Your task to perform on an android device: turn off notifications in google photos Image 0: 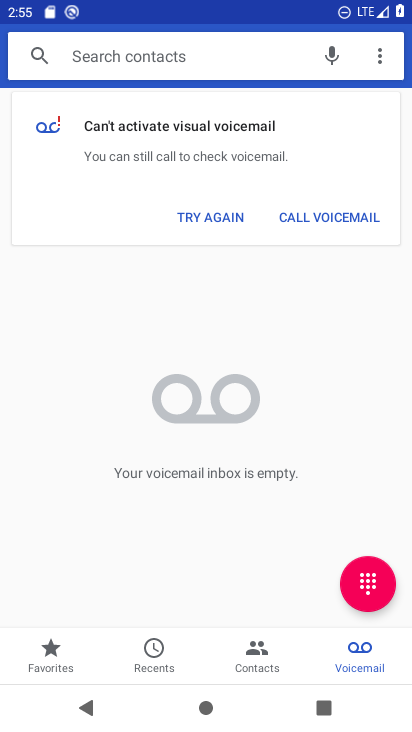
Step 0: press home button
Your task to perform on an android device: turn off notifications in google photos Image 1: 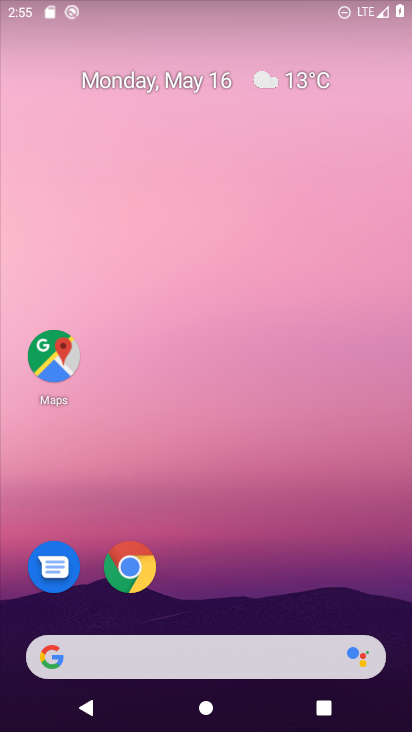
Step 1: drag from (270, 527) to (213, 56)
Your task to perform on an android device: turn off notifications in google photos Image 2: 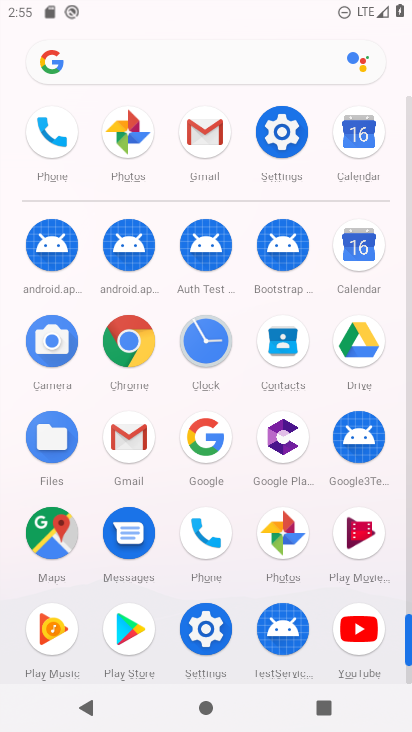
Step 2: click (286, 518)
Your task to perform on an android device: turn off notifications in google photos Image 3: 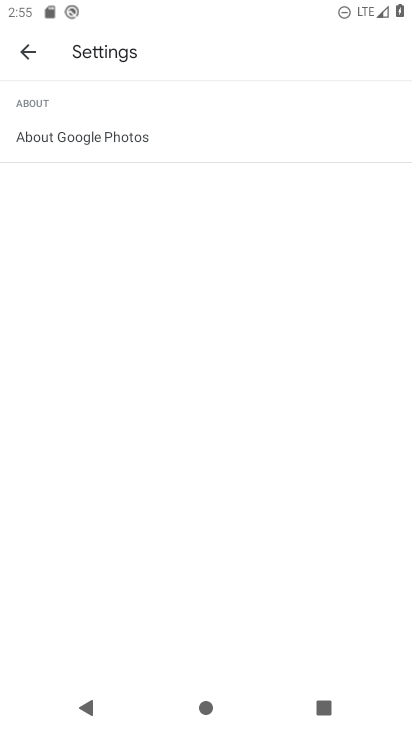
Step 3: click (32, 60)
Your task to perform on an android device: turn off notifications in google photos Image 4: 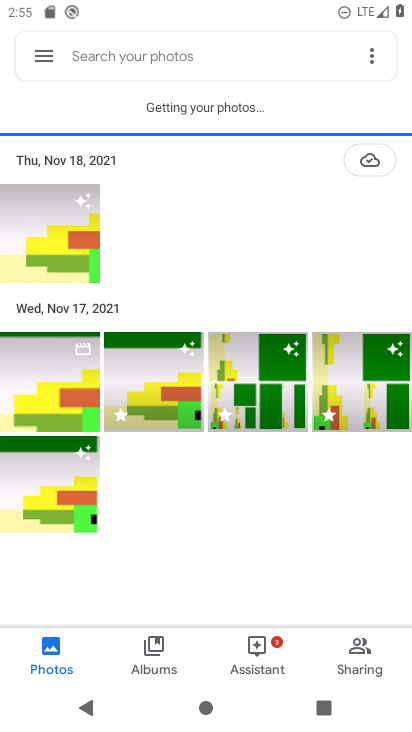
Step 4: click (33, 58)
Your task to perform on an android device: turn off notifications in google photos Image 5: 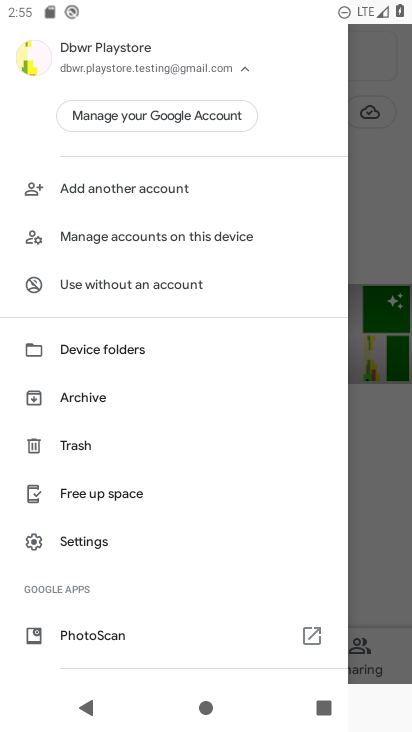
Step 5: click (123, 541)
Your task to perform on an android device: turn off notifications in google photos Image 6: 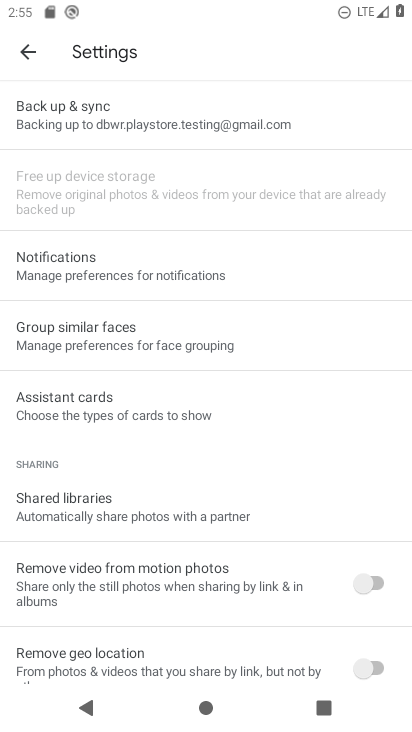
Step 6: click (112, 274)
Your task to perform on an android device: turn off notifications in google photos Image 7: 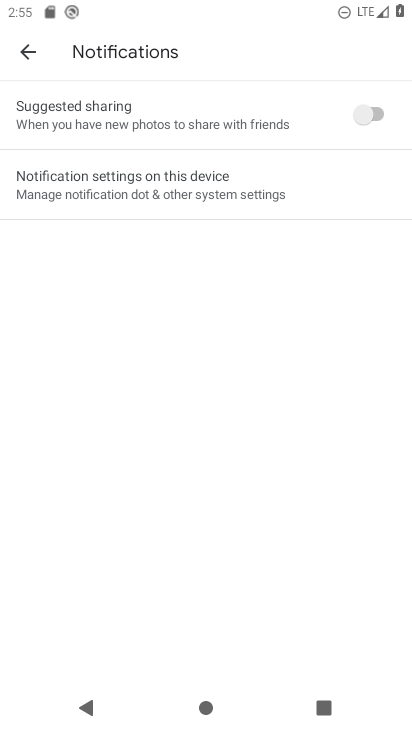
Step 7: click (105, 178)
Your task to perform on an android device: turn off notifications in google photos Image 8: 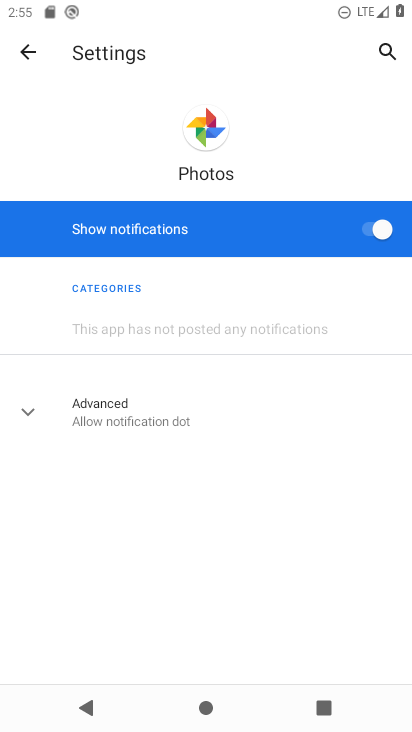
Step 8: click (367, 234)
Your task to perform on an android device: turn off notifications in google photos Image 9: 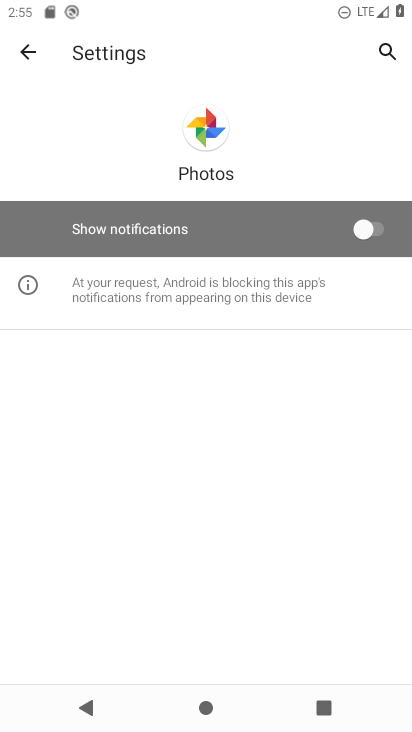
Step 9: task complete